Your task to perform on an android device: allow cookies in the chrome app Image 0: 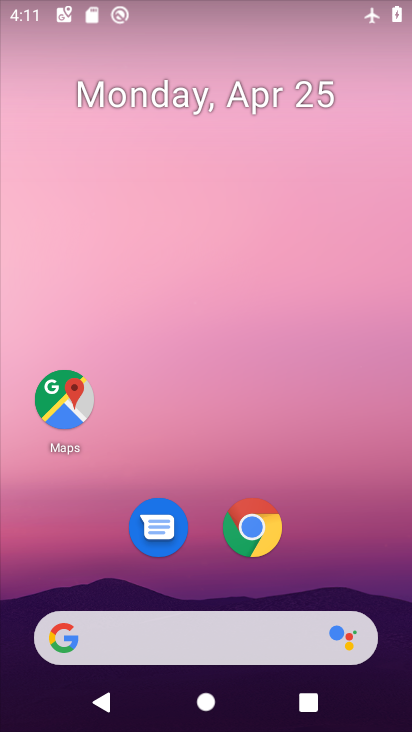
Step 0: click (253, 524)
Your task to perform on an android device: allow cookies in the chrome app Image 1: 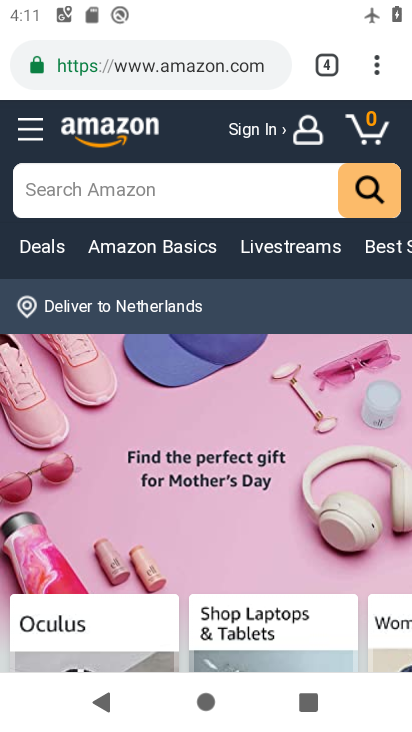
Step 1: click (374, 68)
Your task to perform on an android device: allow cookies in the chrome app Image 2: 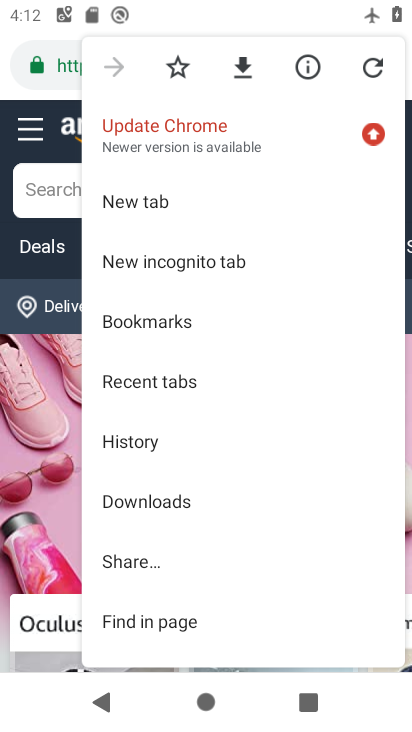
Step 2: drag from (212, 598) to (215, 247)
Your task to perform on an android device: allow cookies in the chrome app Image 3: 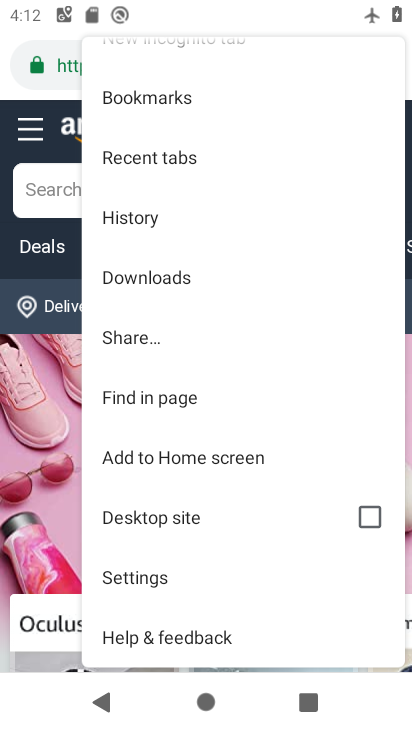
Step 3: click (137, 580)
Your task to perform on an android device: allow cookies in the chrome app Image 4: 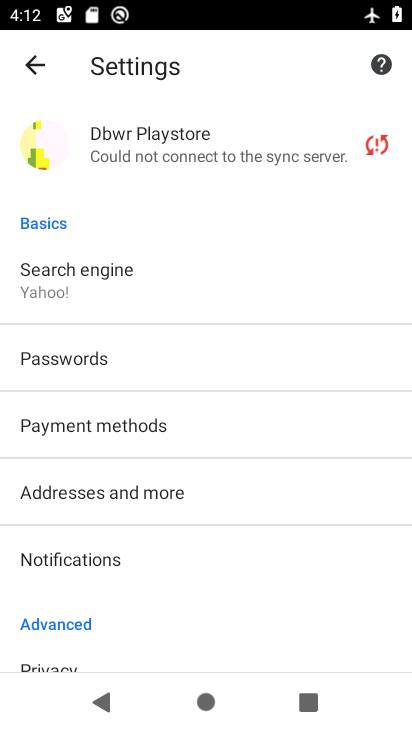
Step 4: drag from (233, 579) to (286, 254)
Your task to perform on an android device: allow cookies in the chrome app Image 5: 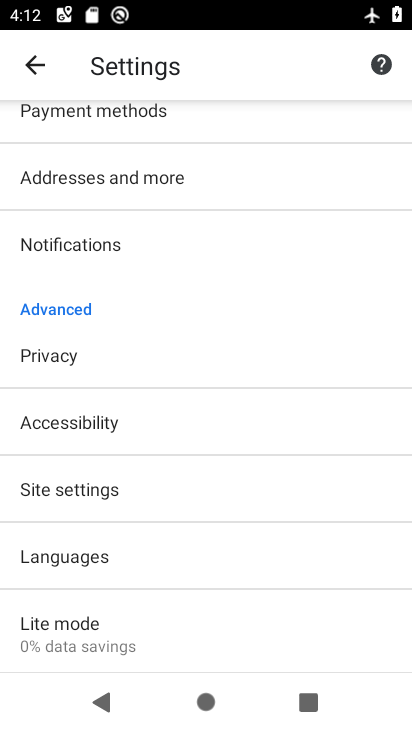
Step 5: click (66, 489)
Your task to perform on an android device: allow cookies in the chrome app Image 6: 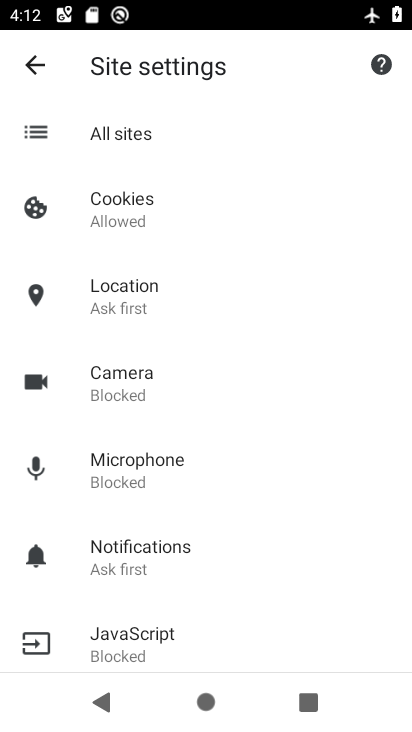
Step 6: click (136, 227)
Your task to perform on an android device: allow cookies in the chrome app Image 7: 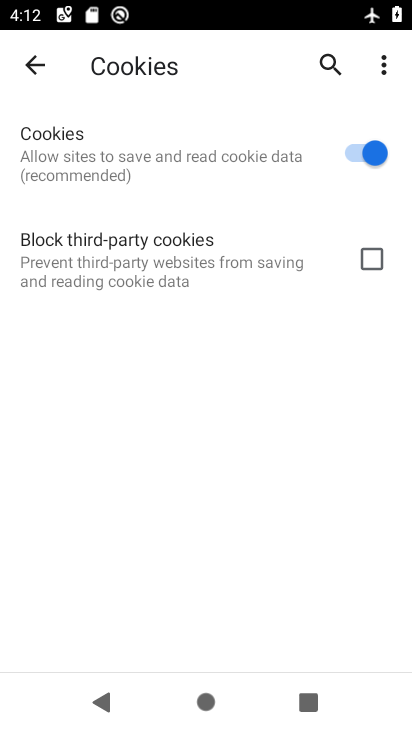
Step 7: task complete